Your task to perform on an android device: What is the recent news? Image 0: 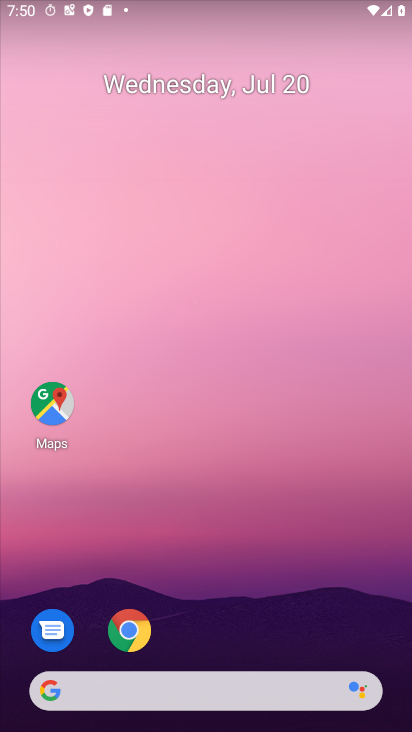
Step 0: drag from (216, 663) to (231, 188)
Your task to perform on an android device: What is the recent news? Image 1: 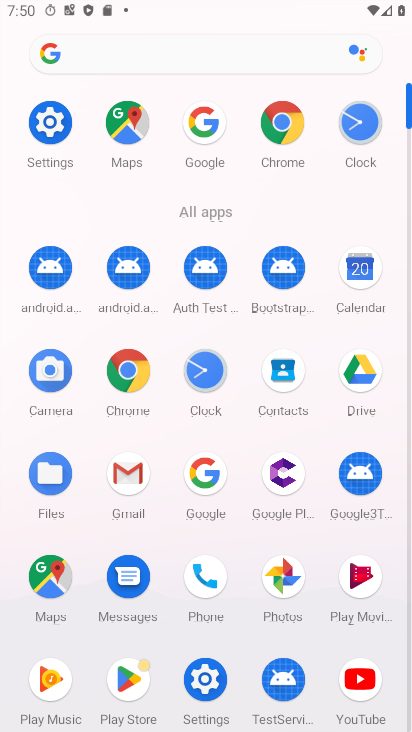
Step 1: click (210, 484)
Your task to perform on an android device: What is the recent news? Image 2: 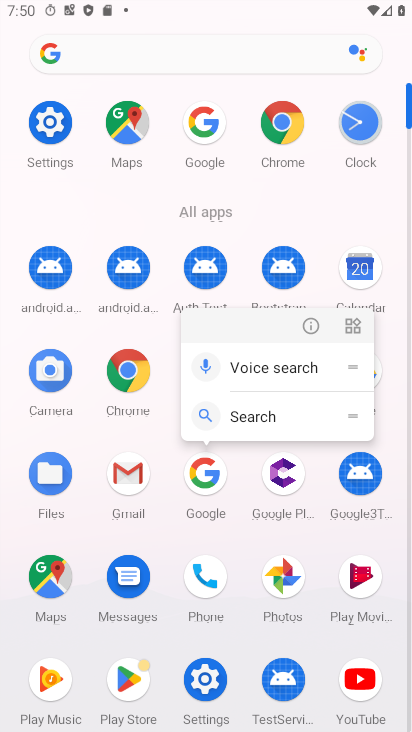
Step 2: click (188, 498)
Your task to perform on an android device: What is the recent news? Image 3: 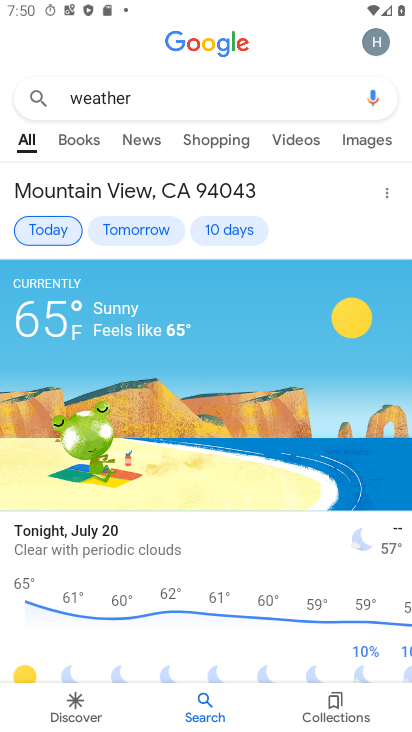
Step 3: click (232, 108)
Your task to perform on an android device: What is the recent news? Image 4: 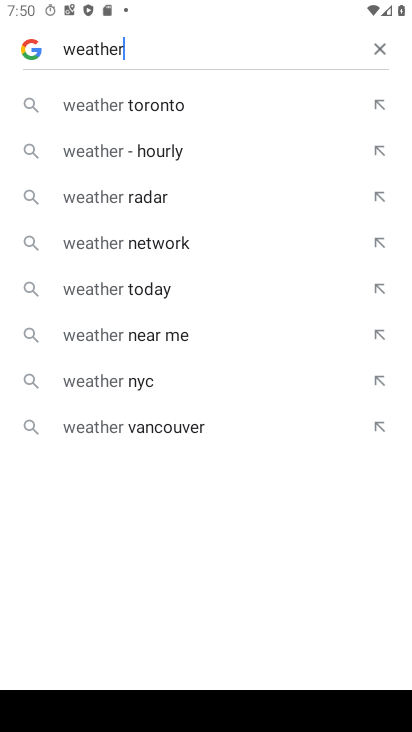
Step 4: click (386, 31)
Your task to perform on an android device: What is the recent news? Image 5: 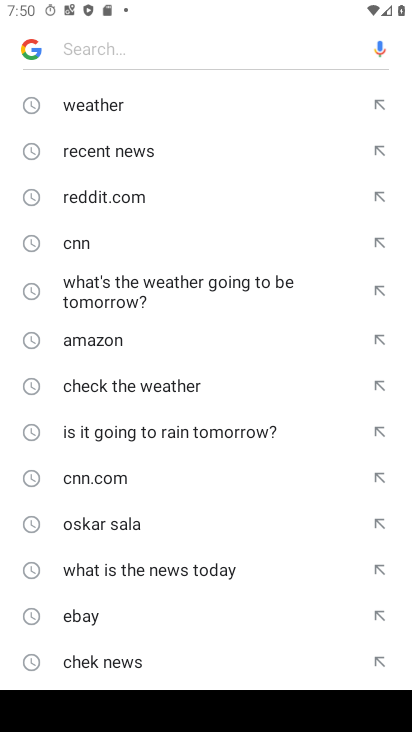
Step 5: click (130, 149)
Your task to perform on an android device: What is the recent news? Image 6: 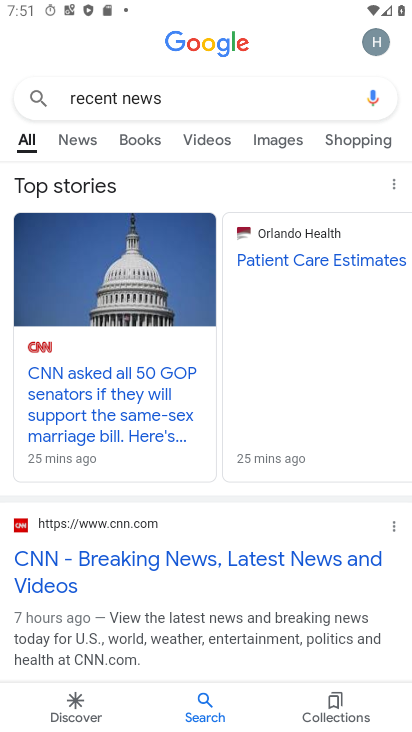
Step 6: click (87, 143)
Your task to perform on an android device: What is the recent news? Image 7: 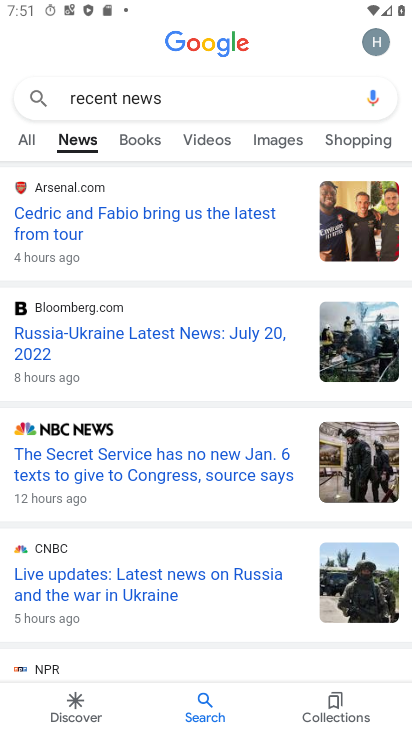
Step 7: task complete